Your task to perform on an android device: Open privacy settings Image 0: 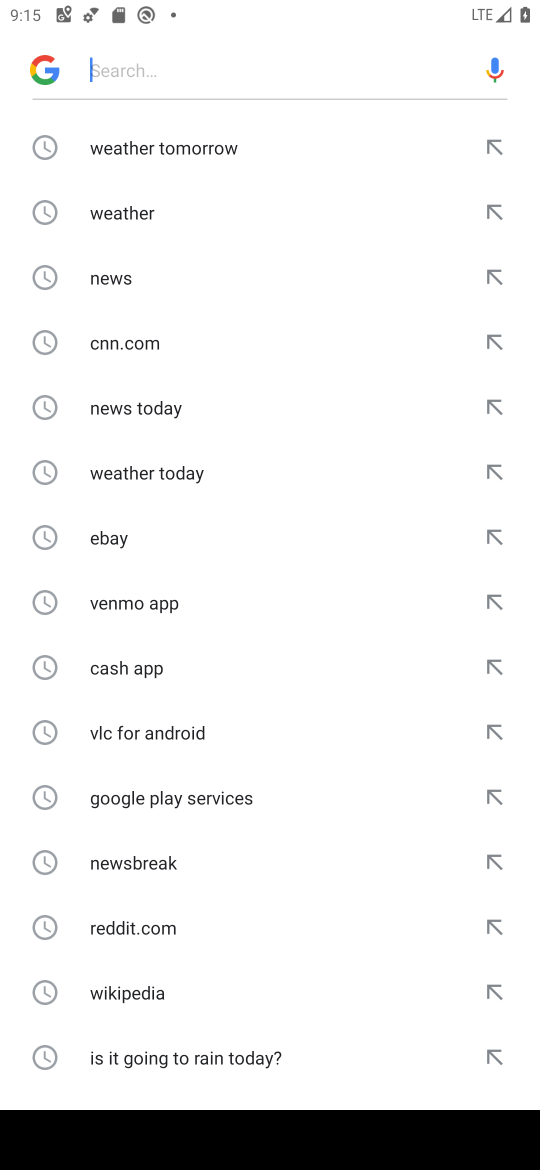
Step 0: press home button
Your task to perform on an android device: Open privacy settings Image 1: 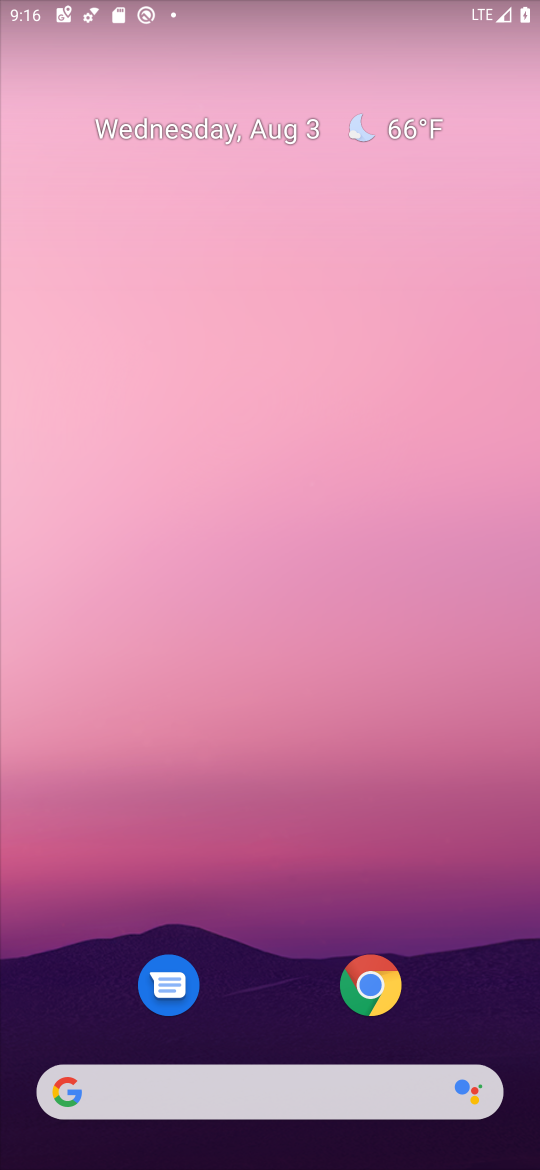
Step 1: drag from (271, 603) to (278, 200)
Your task to perform on an android device: Open privacy settings Image 2: 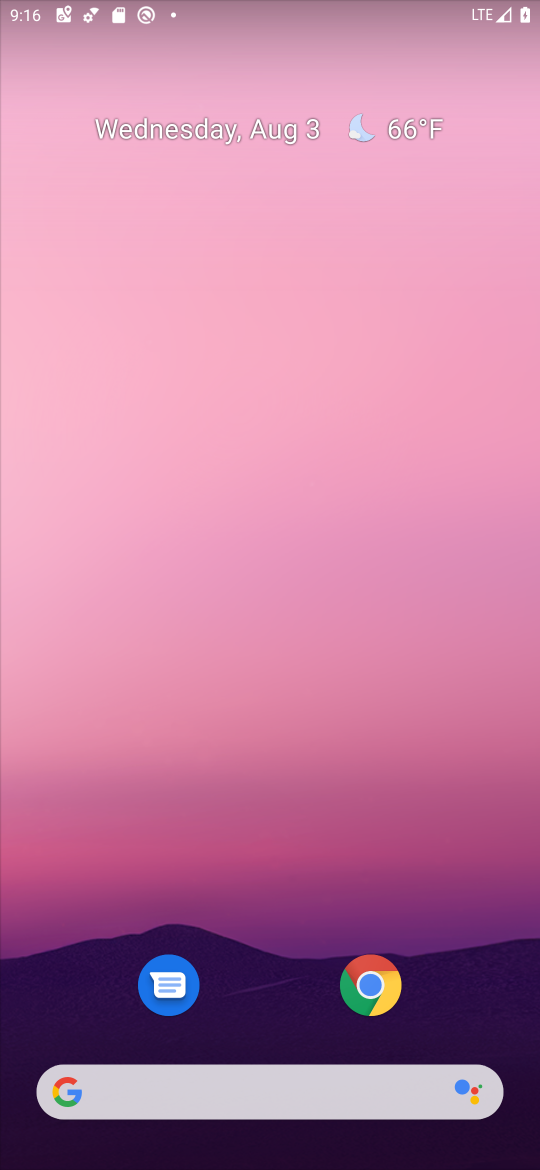
Step 2: drag from (254, 899) to (246, 179)
Your task to perform on an android device: Open privacy settings Image 3: 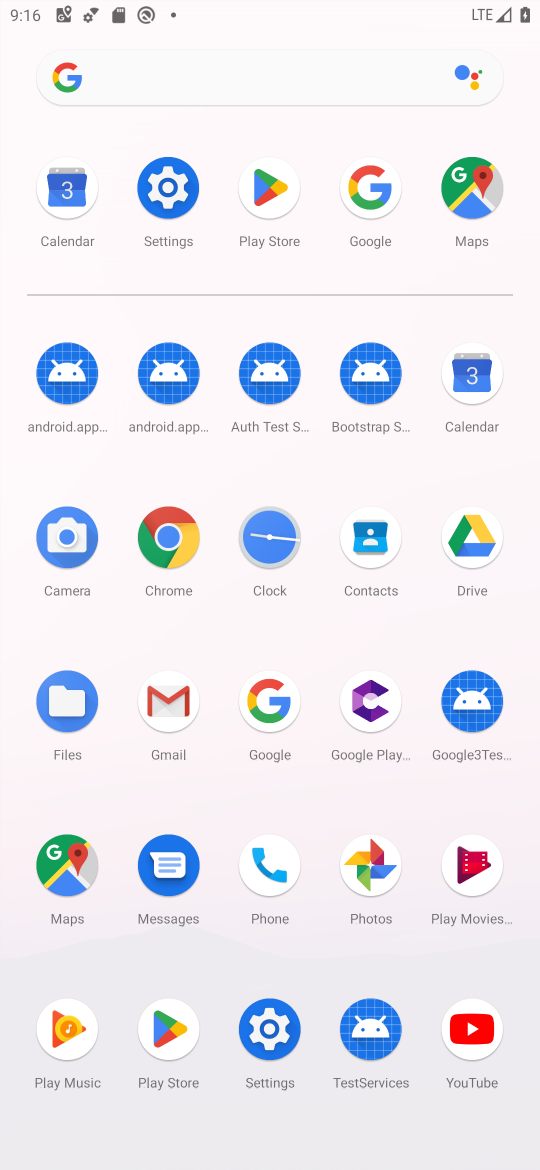
Step 3: click (164, 196)
Your task to perform on an android device: Open privacy settings Image 4: 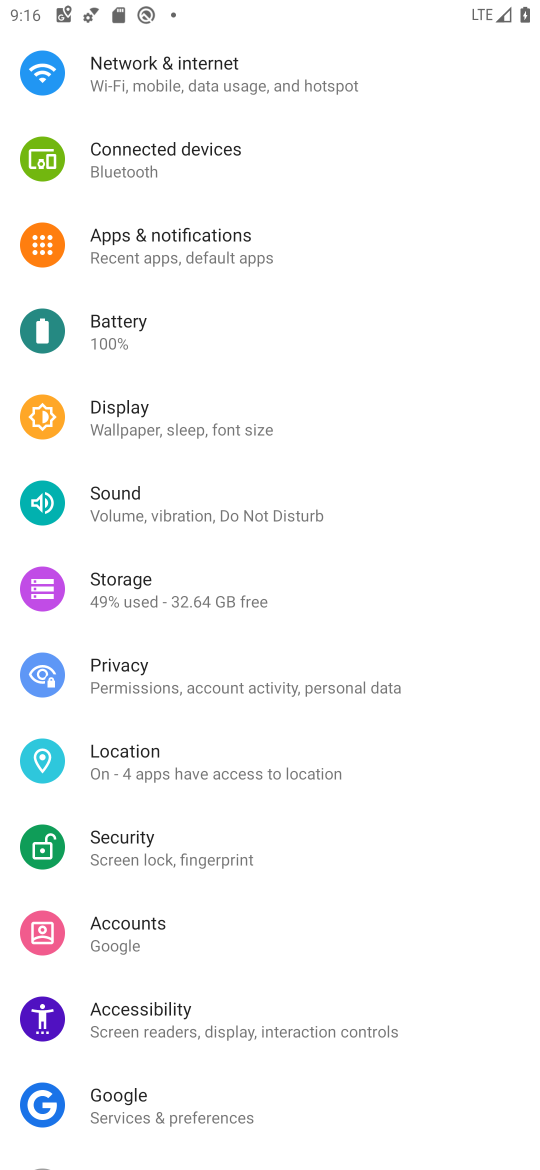
Step 4: click (196, 673)
Your task to perform on an android device: Open privacy settings Image 5: 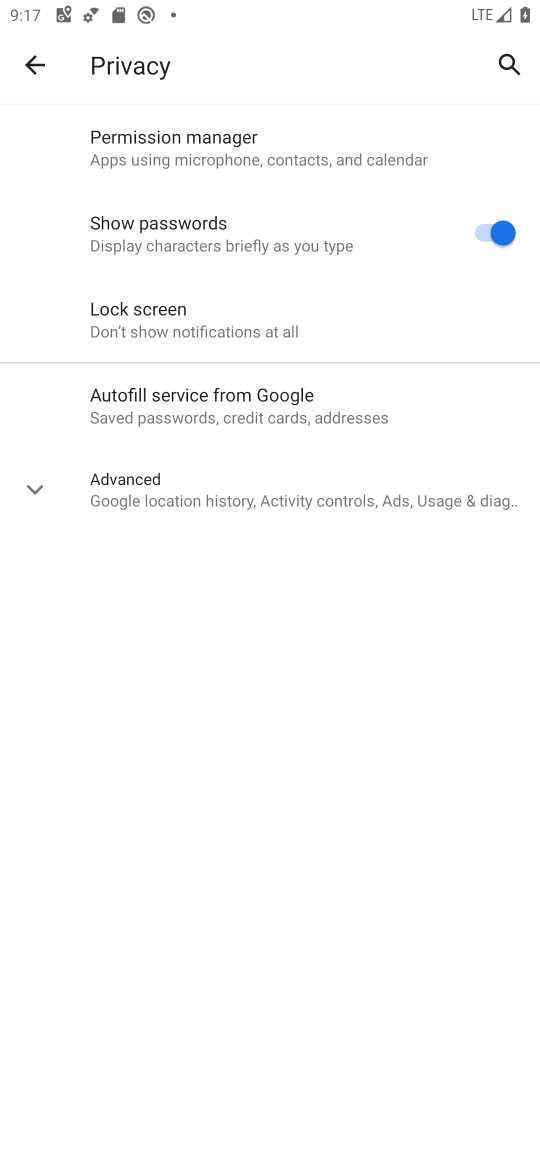
Step 5: task complete